Your task to perform on an android device: turn off location Image 0: 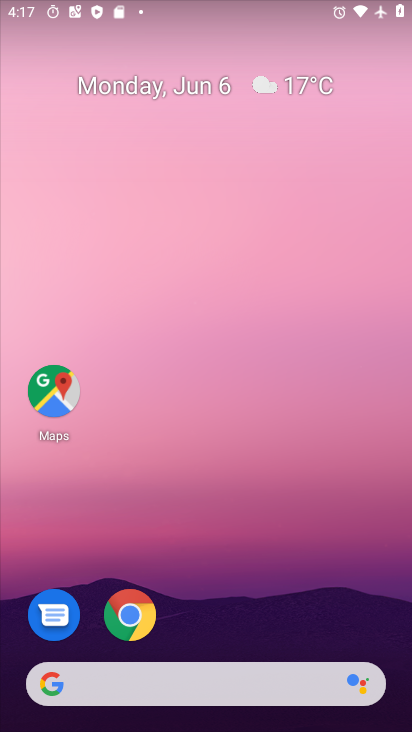
Step 0: drag from (248, 596) to (220, 11)
Your task to perform on an android device: turn off location Image 1: 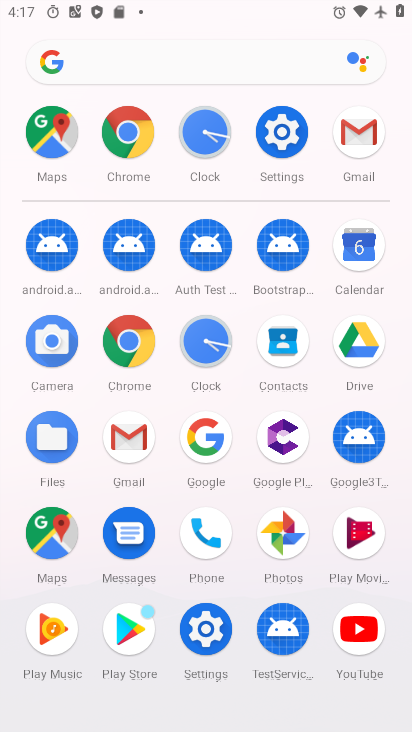
Step 1: drag from (1, 455) to (13, 241)
Your task to perform on an android device: turn off location Image 2: 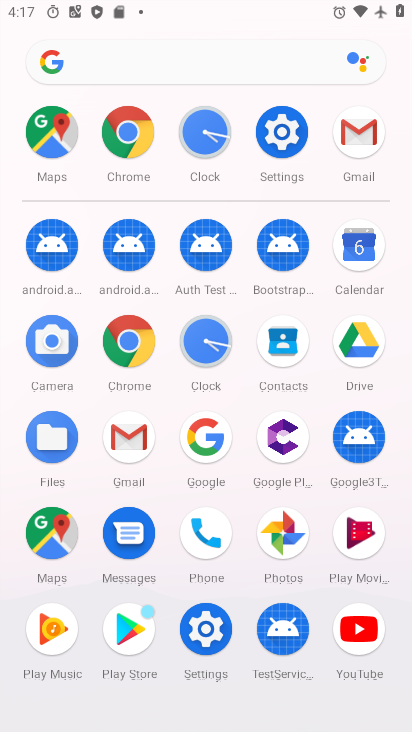
Step 2: click (205, 626)
Your task to perform on an android device: turn off location Image 3: 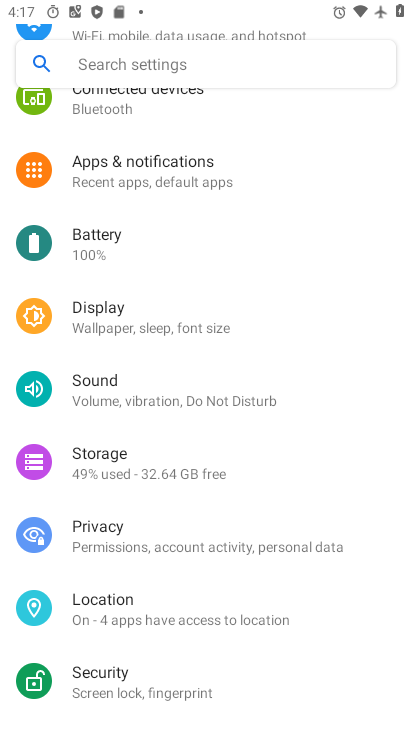
Step 3: drag from (183, 535) to (227, 176)
Your task to perform on an android device: turn off location Image 4: 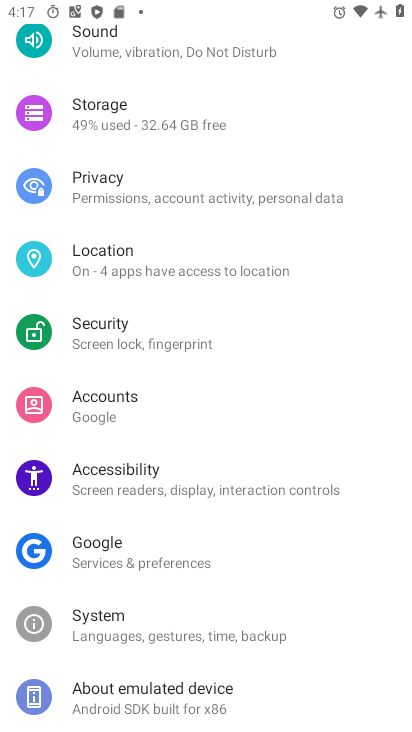
Step 4: drag from (194, 618) to (228, 205)
Your task to perform on an android device: turn off location Image 5: 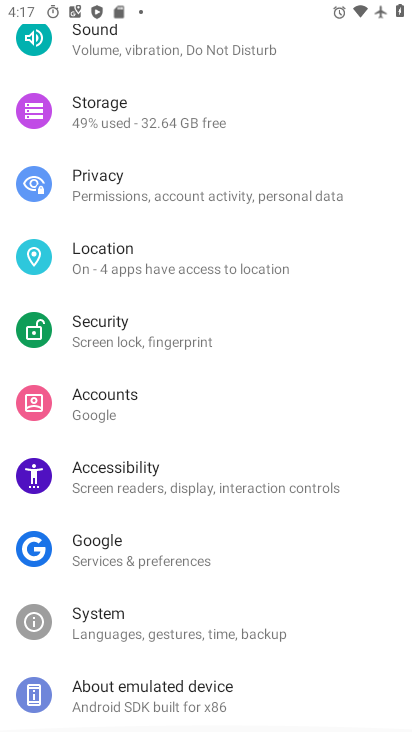
Step 5: drag from (215, 234) to (200, 472)
Your task to perform on an android device: turn off location Image 6: 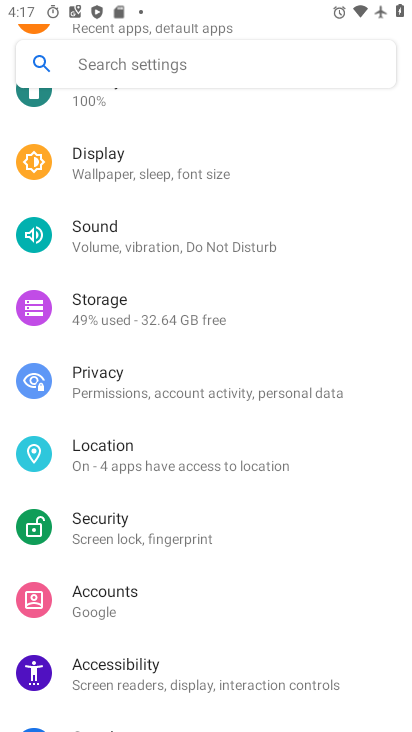
Step 6: click (152, 448)
Your task to perform on an android device: turn off location Image 7: 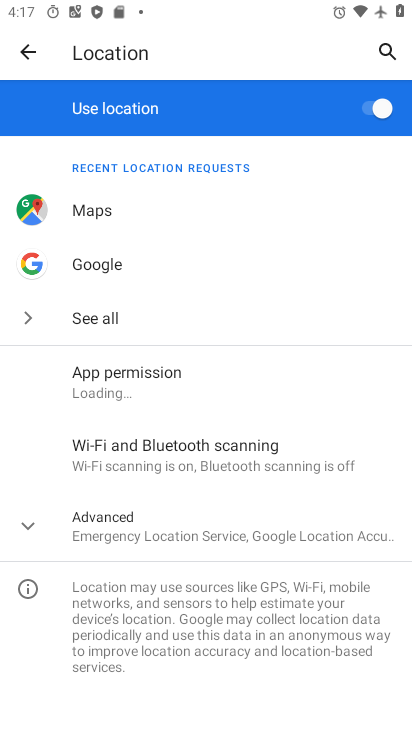
Step 7: click (368, 81)
Your task to perform on an android device: turn off location Image 8: 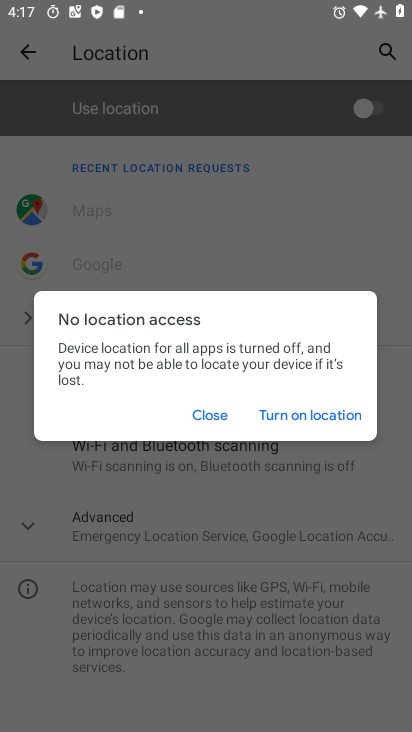
Step 8: click (199, 413)
Your task to perform on an android device: turn off location Image 9: 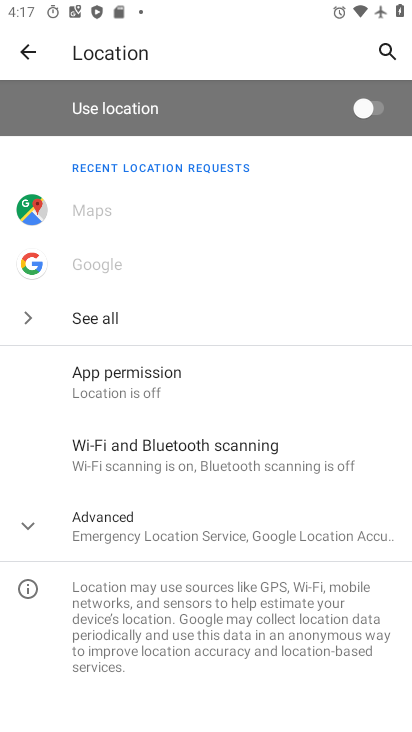
Step 9: task complete